Your task to perform on an android device: open chrome and create a bookmark for the current page Image 0: 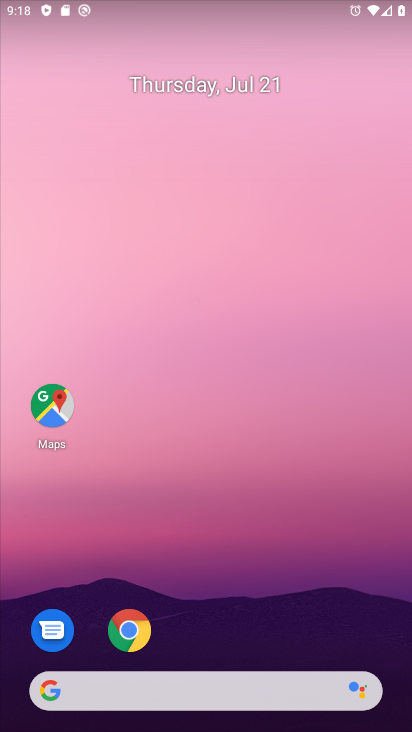
Step 0: click (129, 623)
Your task to perform on an android device: open chrome and create a bookmark for the current page Image 1: 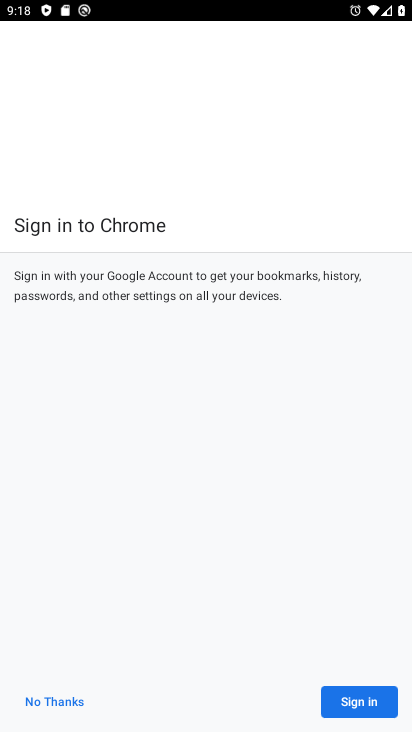
Step 1: click (372, 708)
Your task to perform on an android device: open chrome and create a bookmark for the current page Image 2: 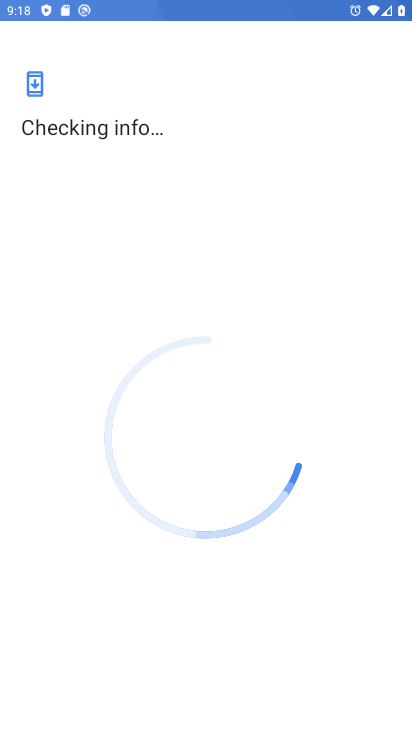
Step 2: task complete